Your task to perform on an android device: refresh tabs in the chrome app Image 0: 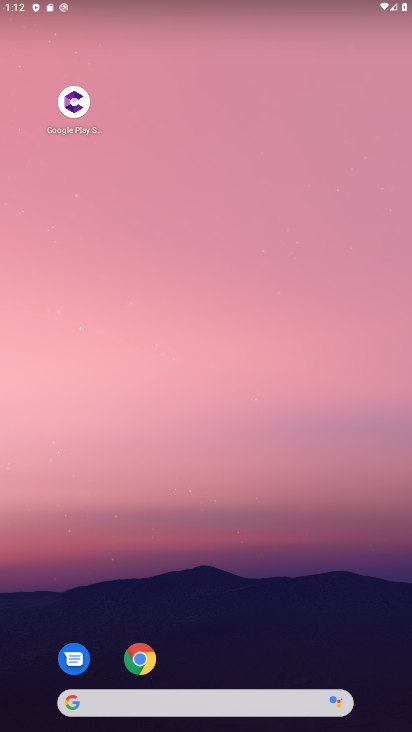
Step 0: click (144, 655)
Your task to perform on an android device: refresh tabs in the chrome app Image 1: 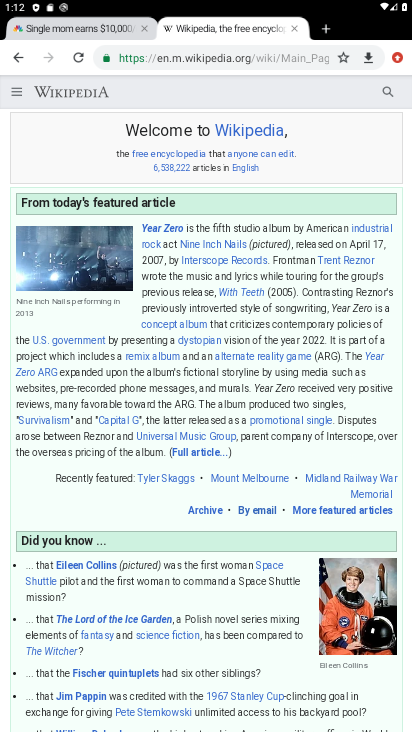
Step 1: click (85, 53)
Your task to perform on an android device: refresh tabs in the chrome app Image 2: 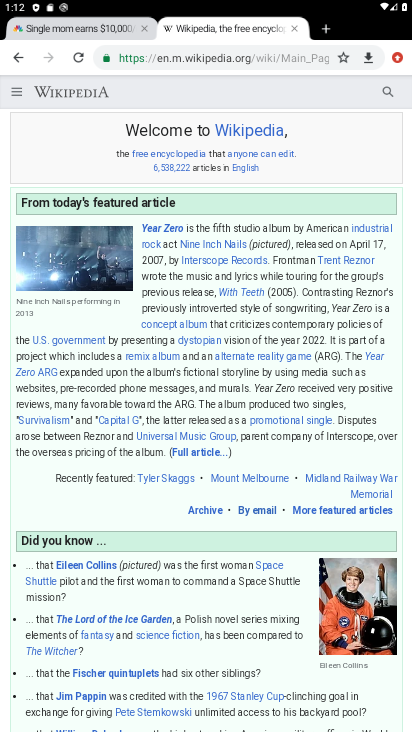
Step 2: task complete